Your task to perform on an android device: check google app version Image 0: 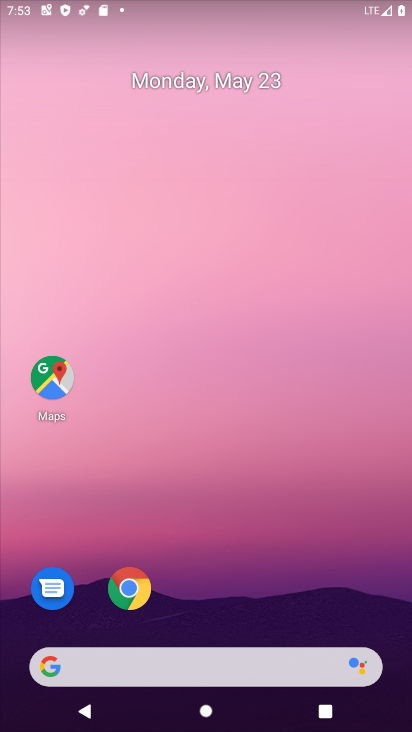
Step 0: drag from (402, 648) to (334, 136)
Your task to perform on an android device: check google app version Image 1: 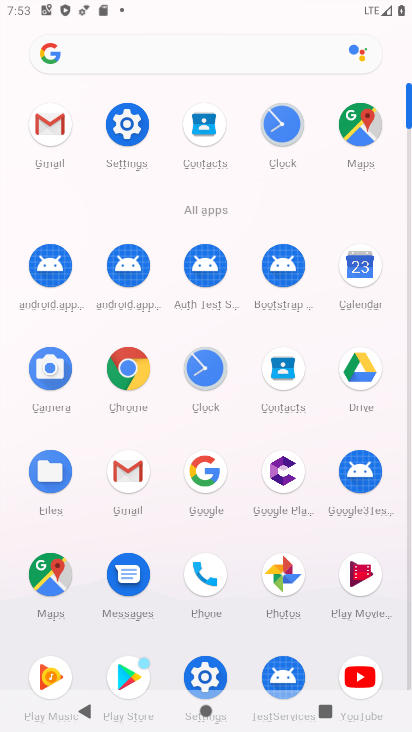
Step 1: click (202, 484)
Your task to perform on an android device: check google app version Image 2: 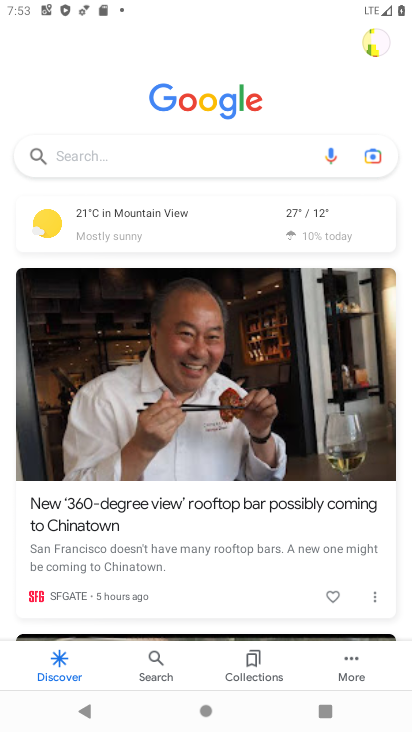
Step 2: click (359, 663)
Your task to perform on an android device: check google app version Image 3: 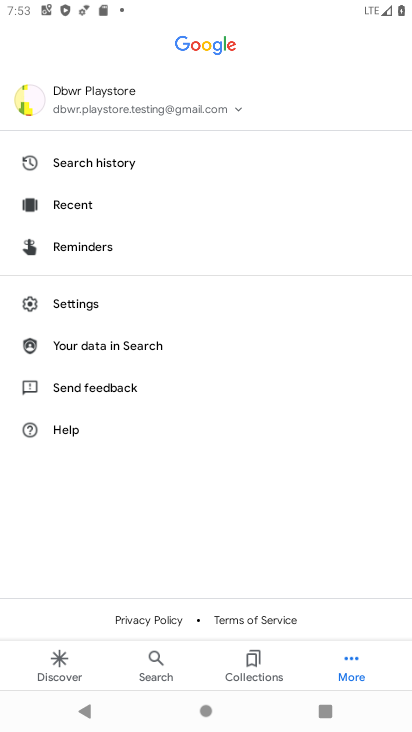
Step 3: click (78, 301)
Your task to perform on an android device: check google app version Image 4: 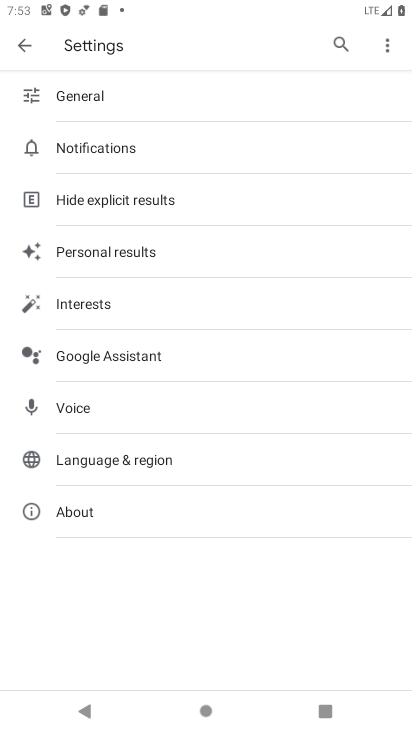
Step 4: click (70, 515)
Your task to perform on an android device: check google app version Image 5: 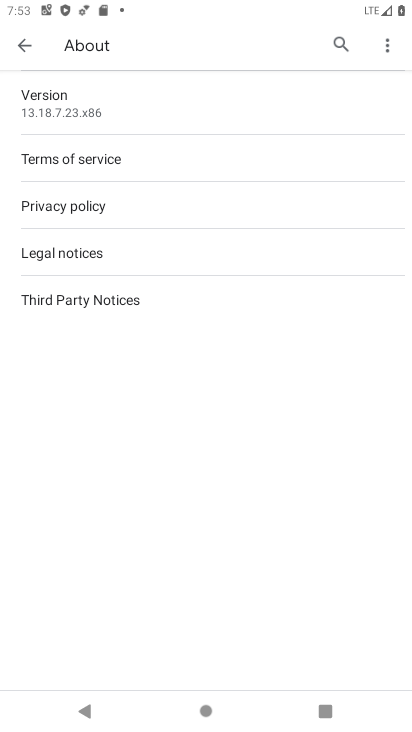
Step 5: click (58, 95)
Your task to perform on an android device: check google app version Image 6: 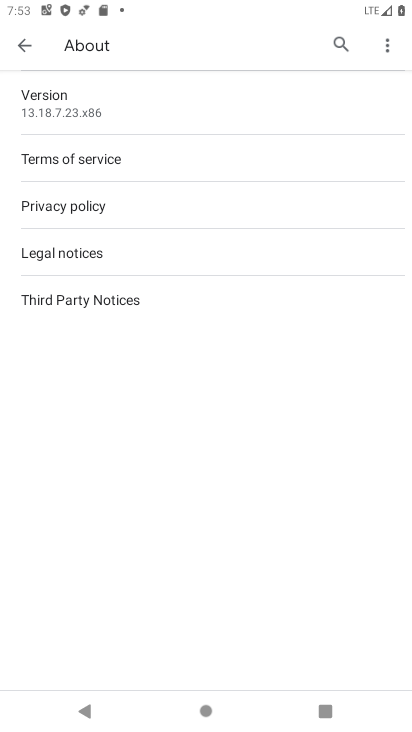
Step 6: task complete